Your task to perform on an android device: Add usb-c to usb-b to the cart on ebay.com, then select checkout. Image 0: 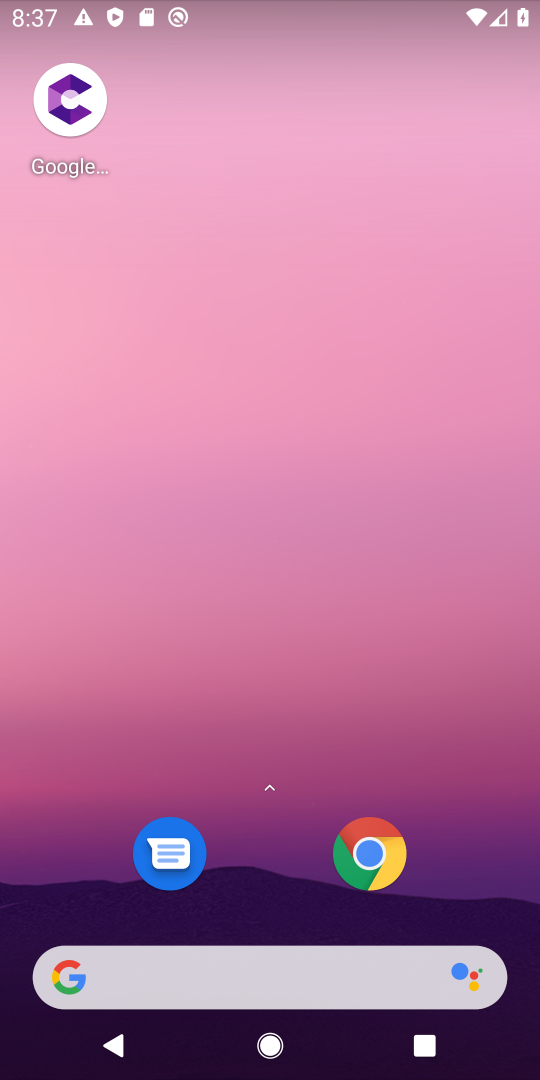
Step 0: click (243, 973)
Your task to perform on an android device: Add usb-c to usb-b to the cart on ebay.com, then select checkout. Image 1: 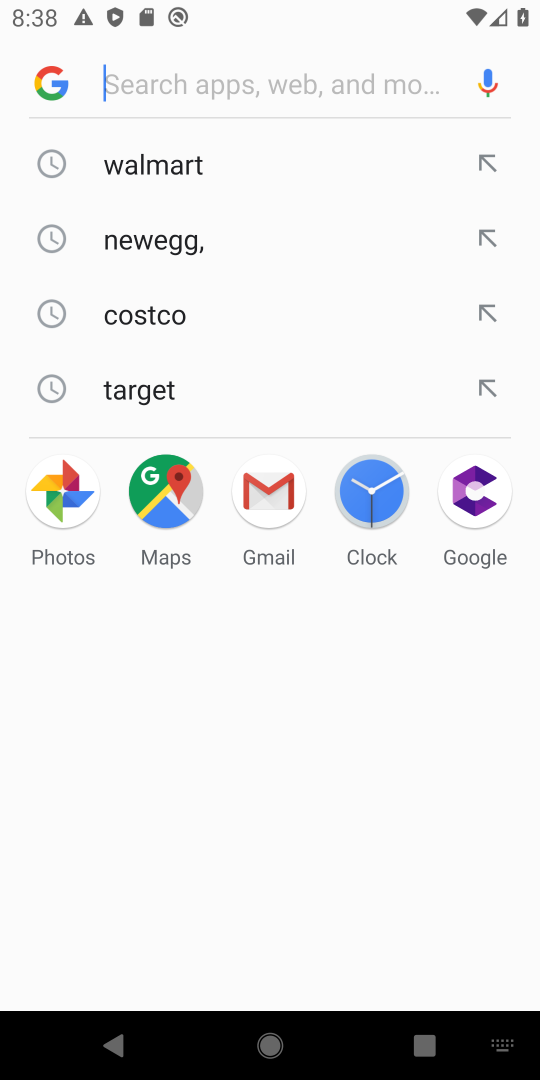
Step 1: click (219, 186)
Your task to perform on an android device: Add usb-c to usb-b to the cart on ebay.com, then select checkout. Image 2: 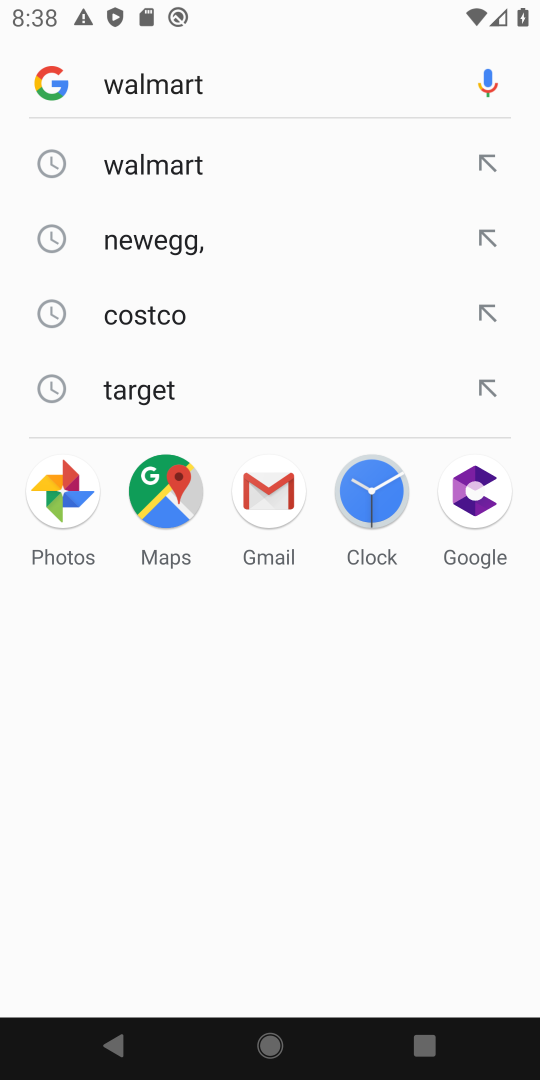
Step 2: task complete